Your task to perform on an android device: Add "bose soundlink" to the cart on walmart, then select checkout. Image 0: 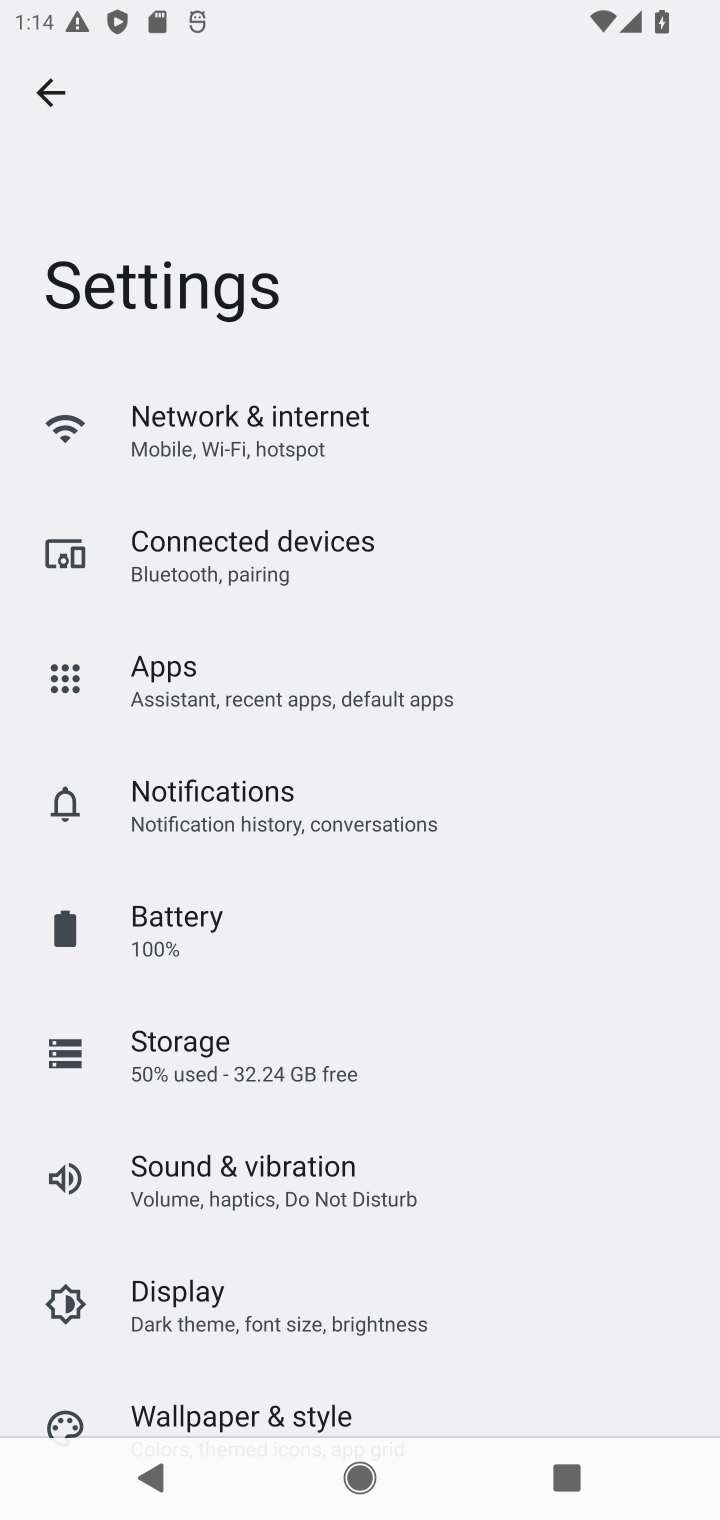
Step 0: press home button
Your task to perform on an android device: Add "bose soundlink" to the cart on walmart, then select checkout. Image 1: 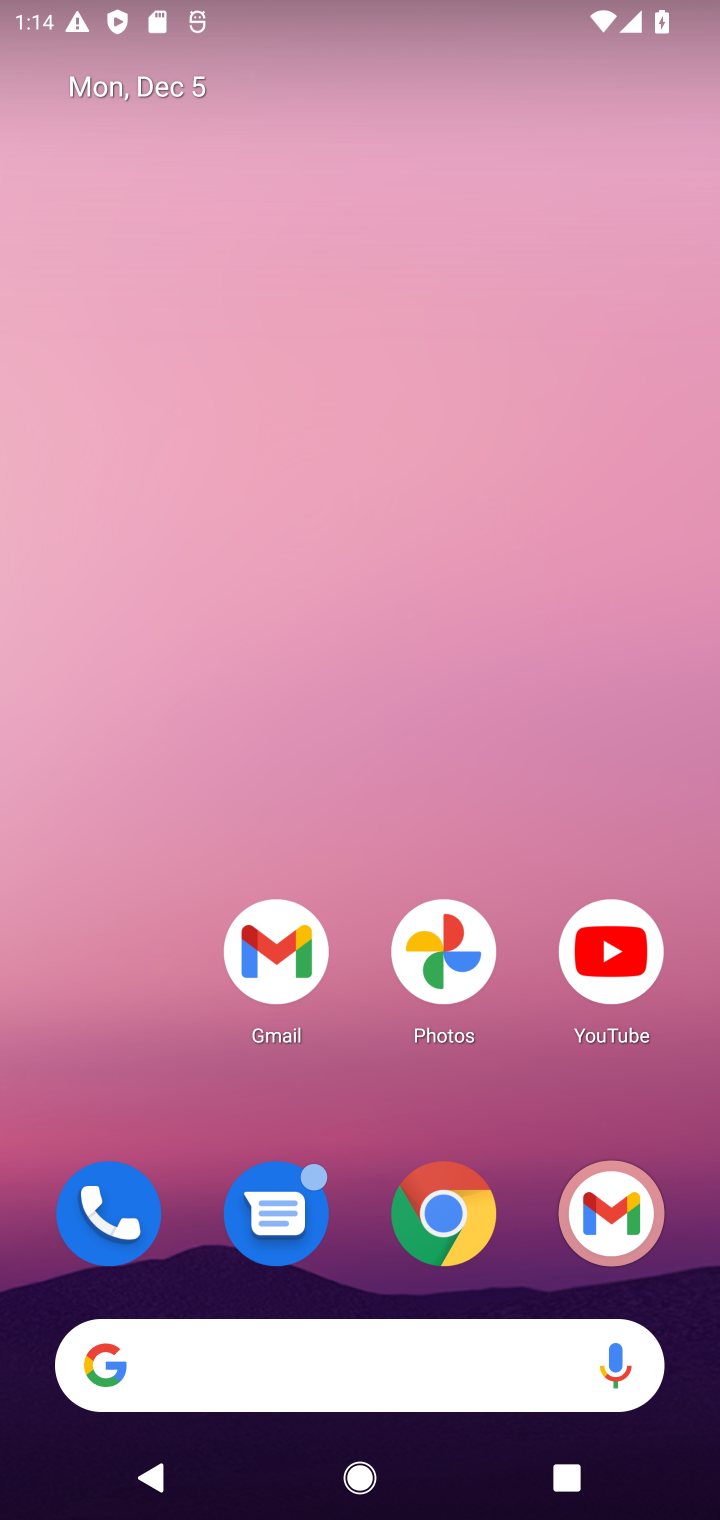
Step 1: click (435, 1226)
Your task to perform on an android device: Add "bose soundlink" to the cart on walmart, then select checkout. Image 2: 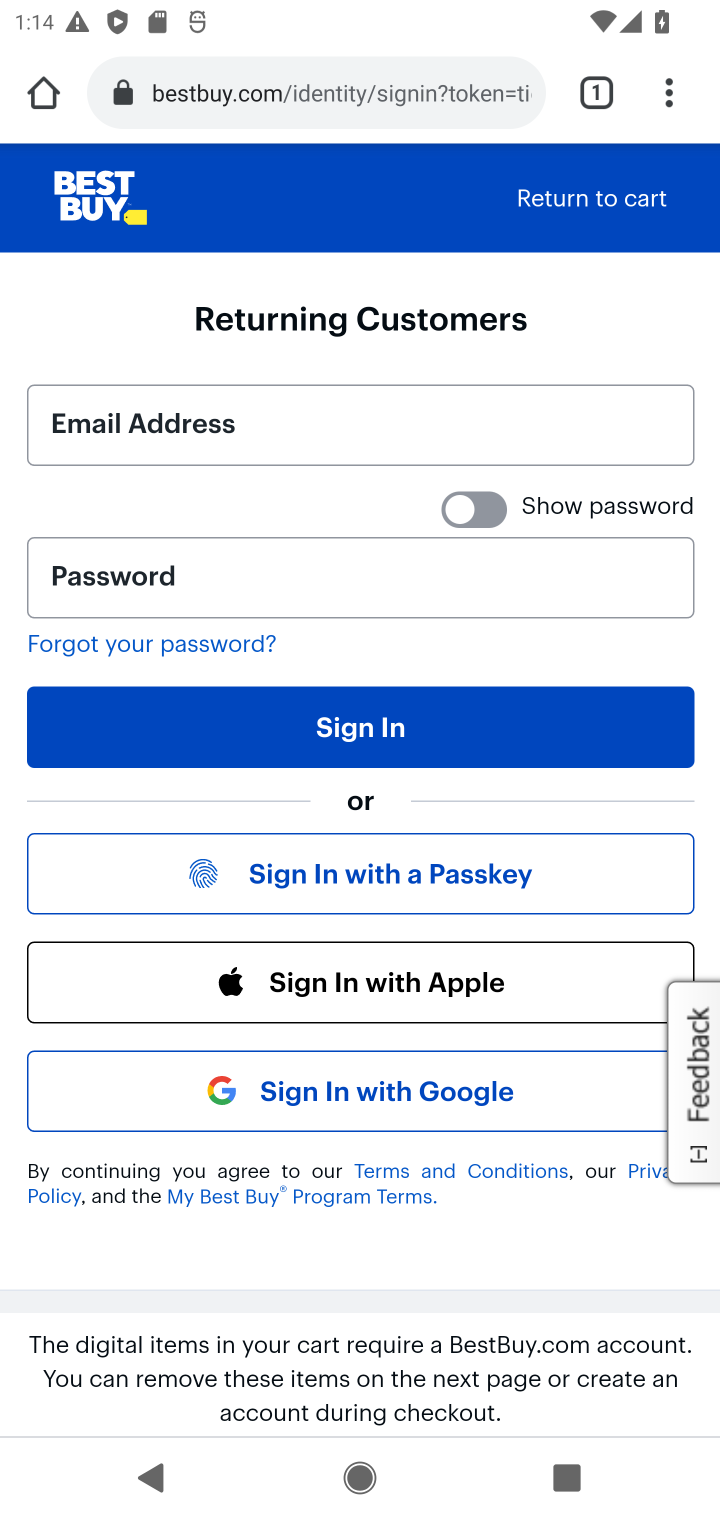
Step 2: click (236, 107)
Your task to perform on an android device: Add "bose soundlink" to the cart on walmart, then select checkout. Image 3: 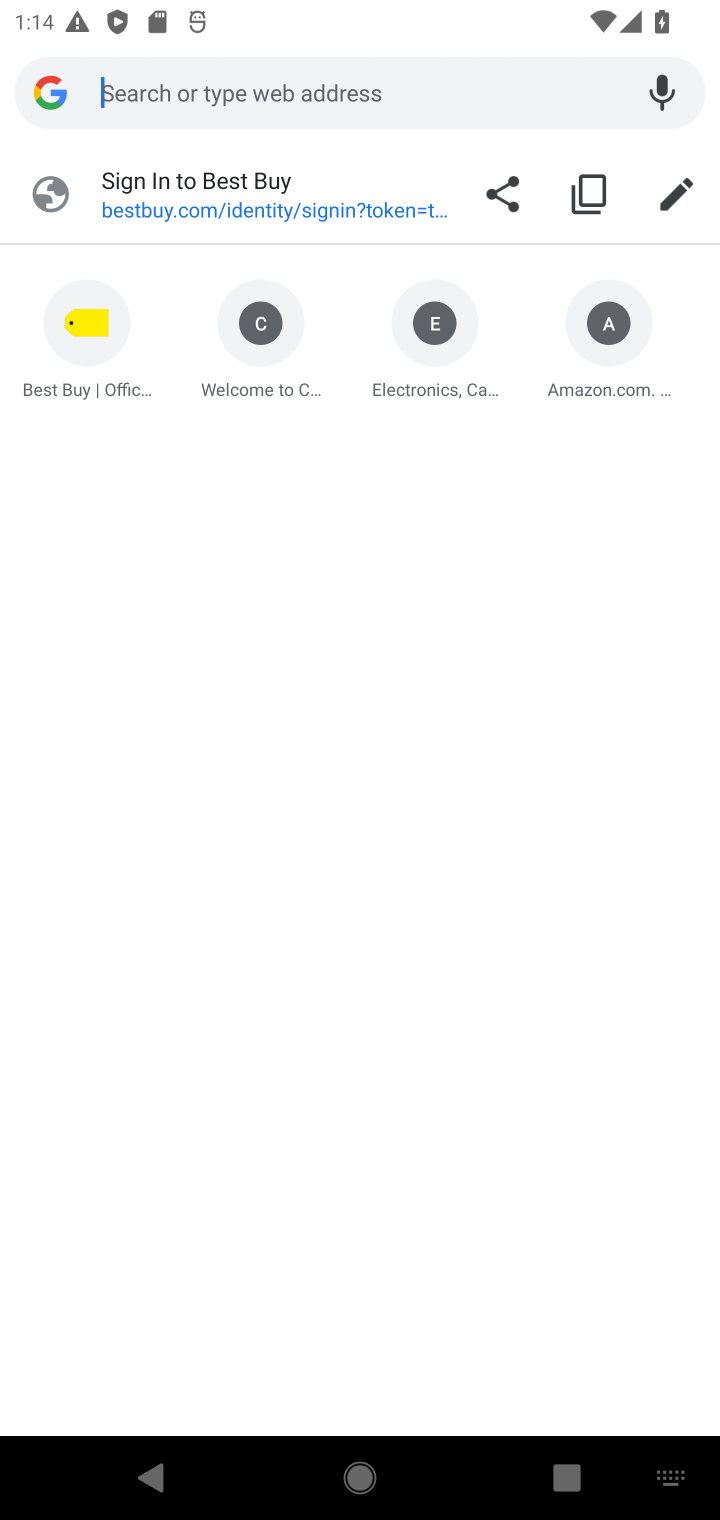
Step 3: type "walmart.com"
Your task to perform on an android device: Add "bose soundlink" to the cart on walmart, then select checkout. Image 4: 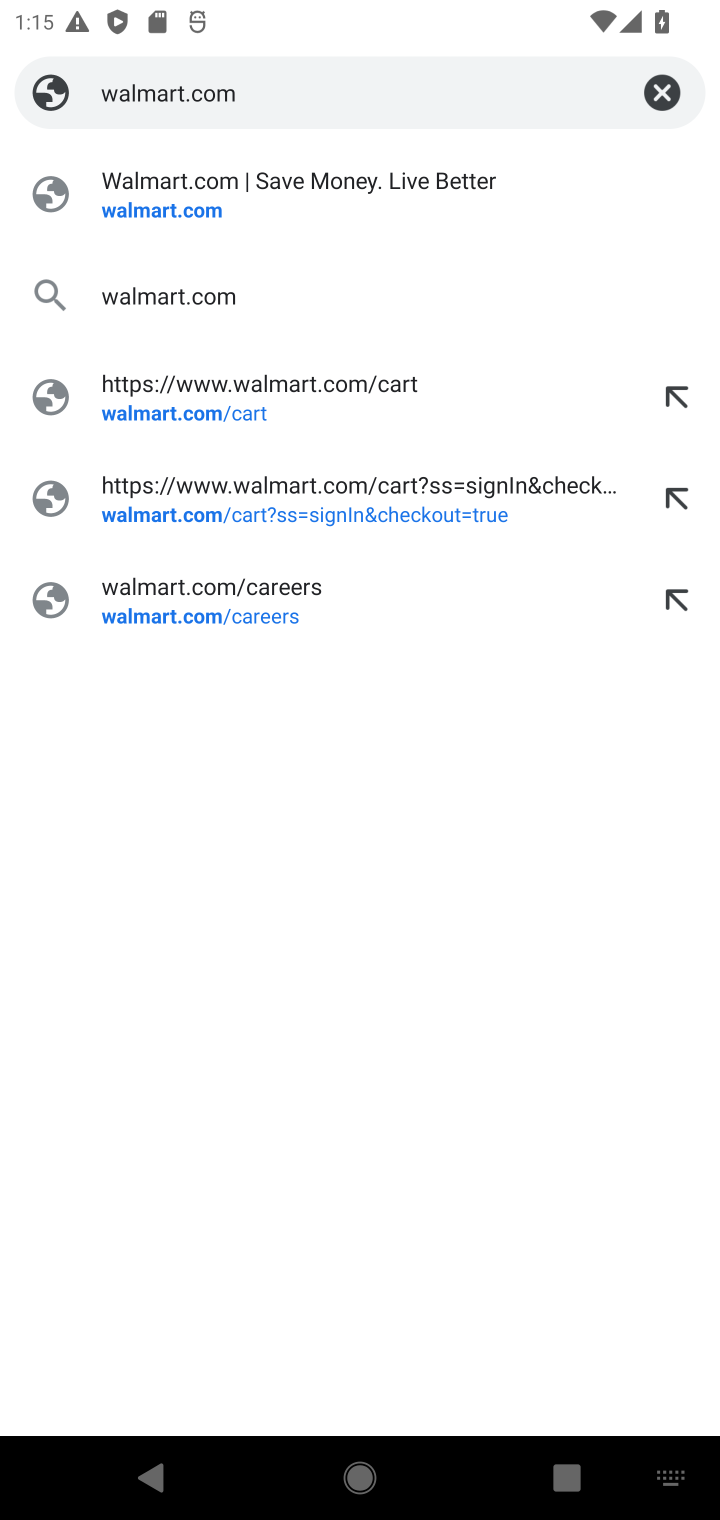
Step 4: click (154, 217)
Your task to perform on an android device: Add "bose soundlink" to the cart on walmart, then select checkout. Image 5: 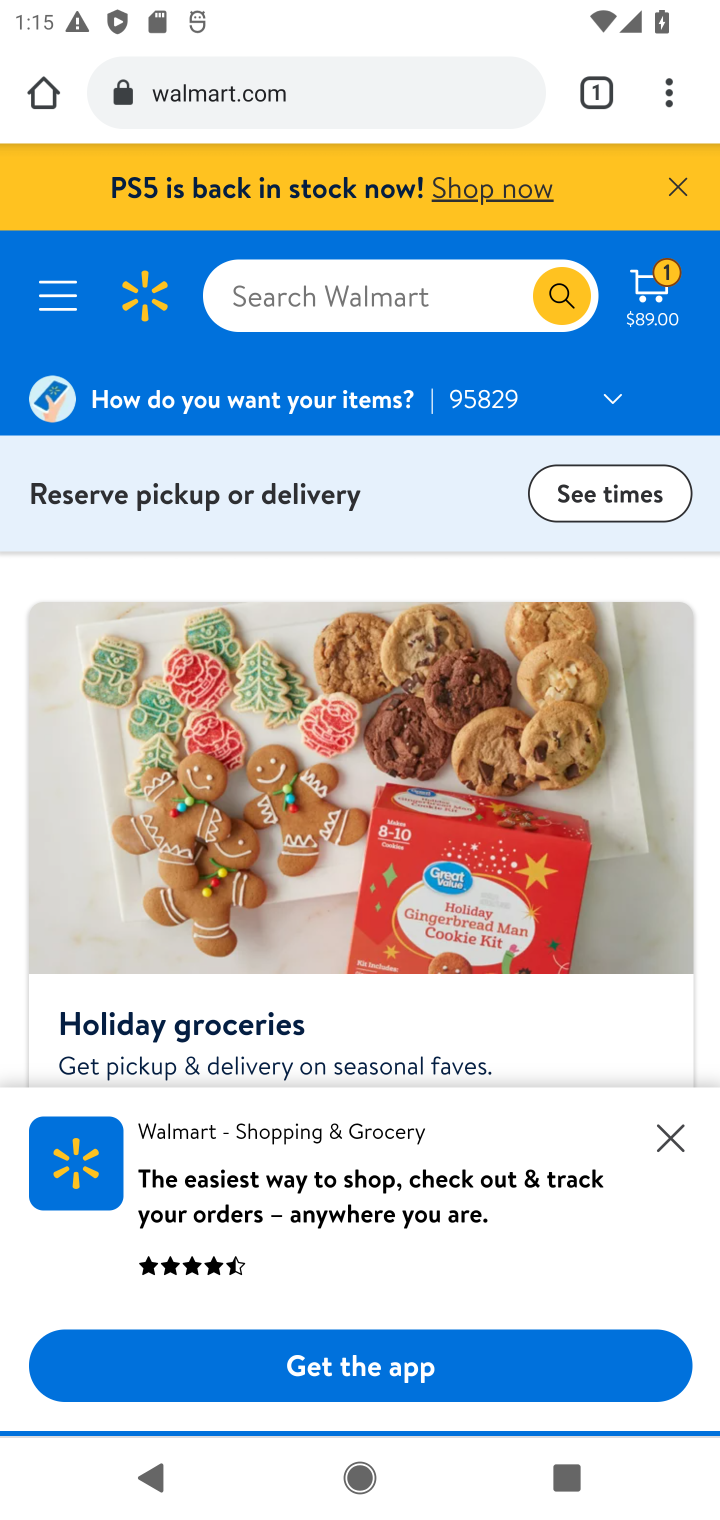
Step 5: click (354, 295)
Your task to perform on an android device: Add "bose soundlink" to the cart on walmart, then select checkout. Image 6: 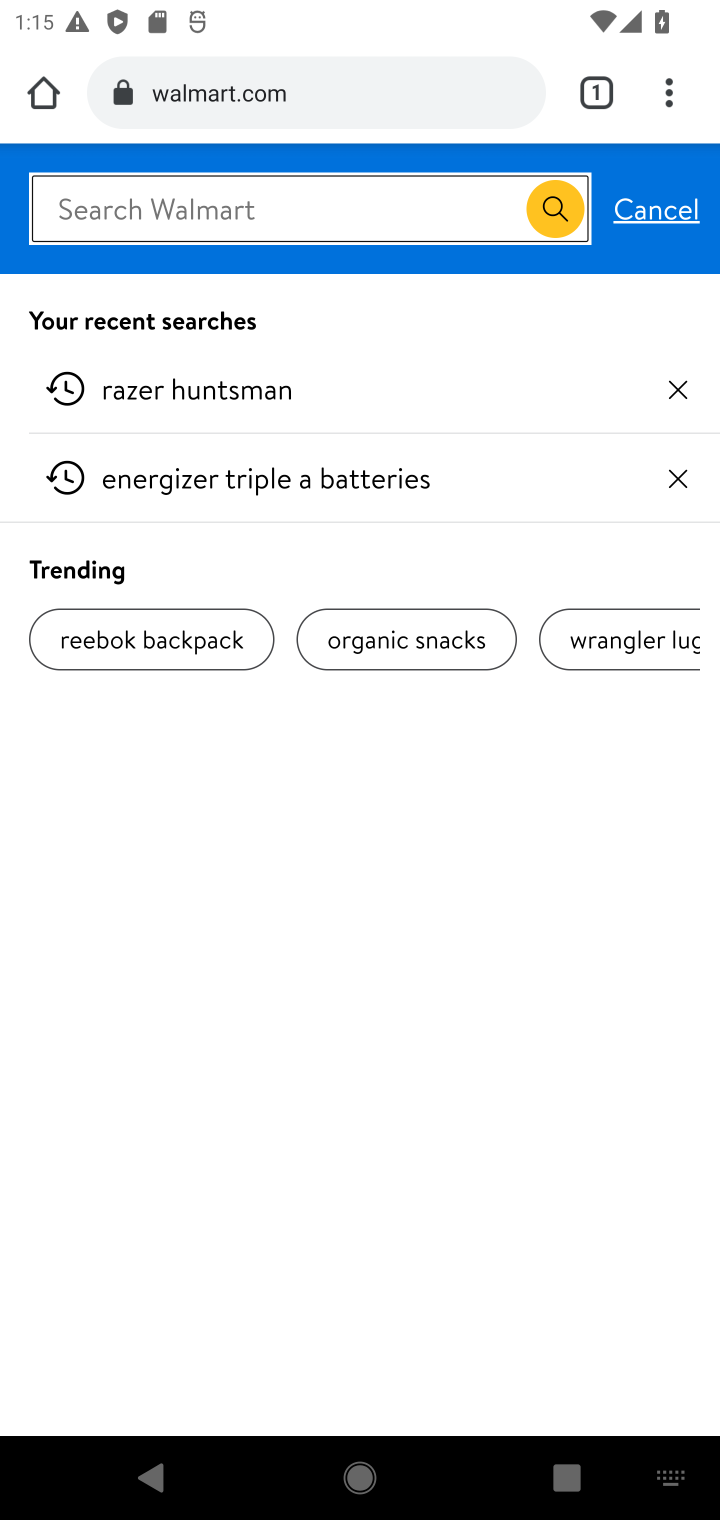
Step 6: type "bose soundlink"
Your task to perform on an android device: Add "bose soundlink" to the cart on walmart, then select checkout. Image 7: 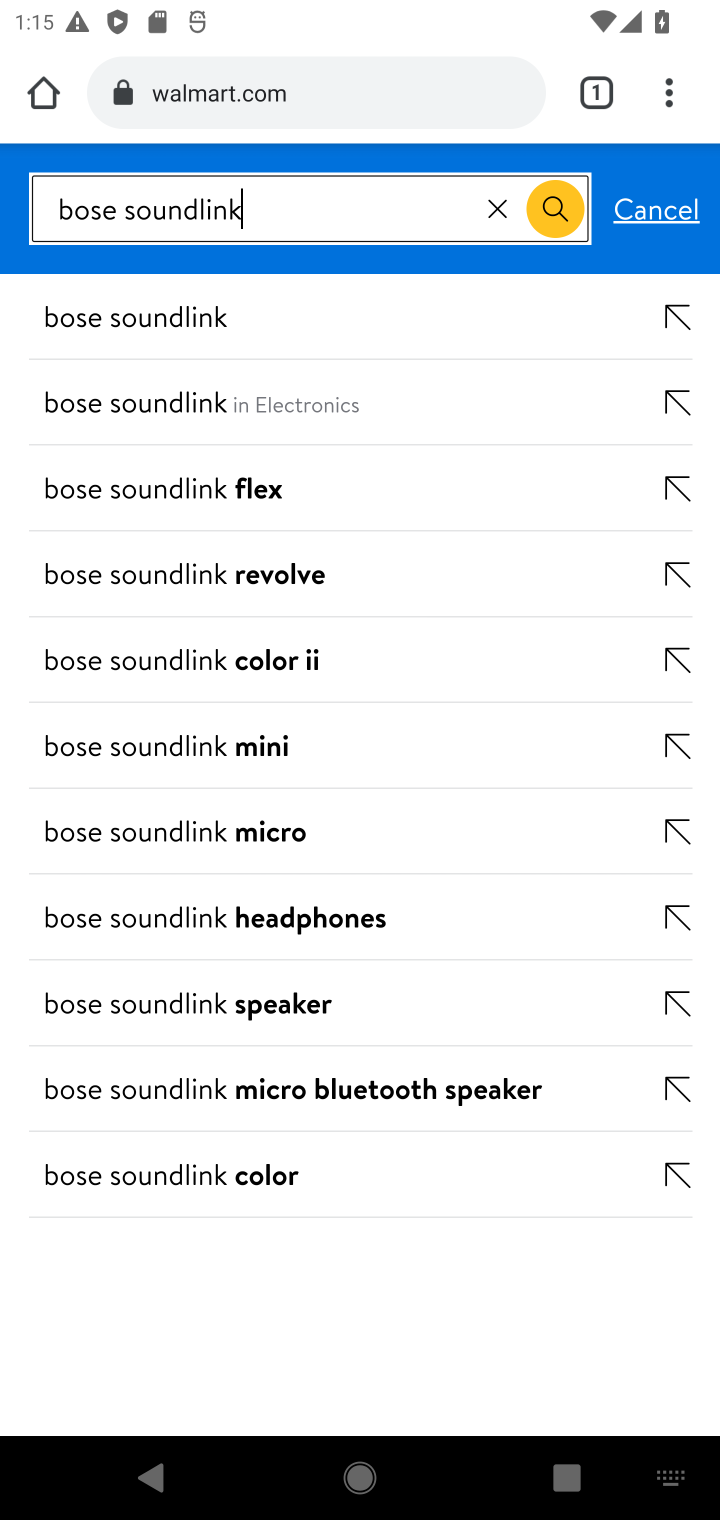
Step 7: click (143, 336)
Your task to perform on an android device: Add "bose soundlink" to the cart on walmart, then select checkout. Image 8: 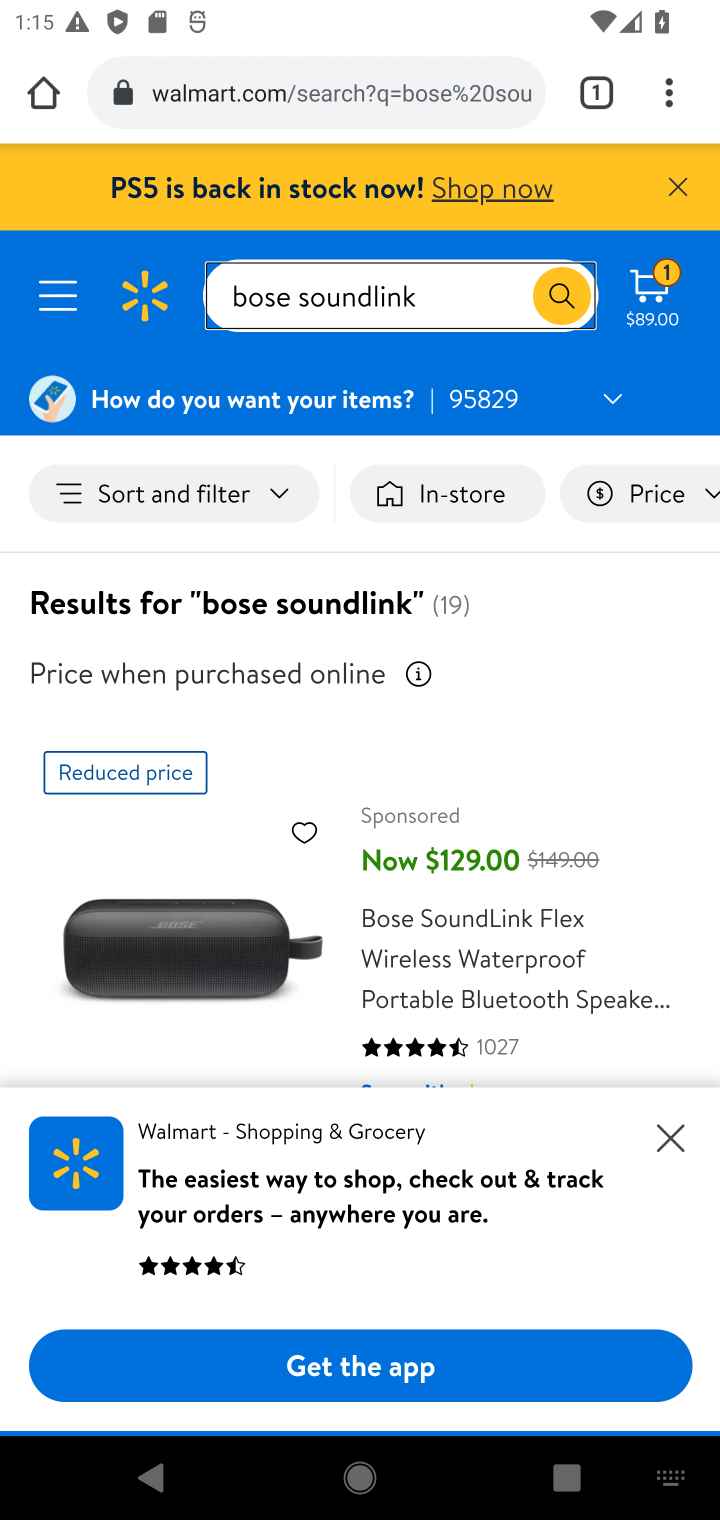
Step 8: drag from (331, 719) to (350, 501)
Your task to perform on an android device: Add "bose soundlink" to the cart on walmart, then select checkout. Image 9: 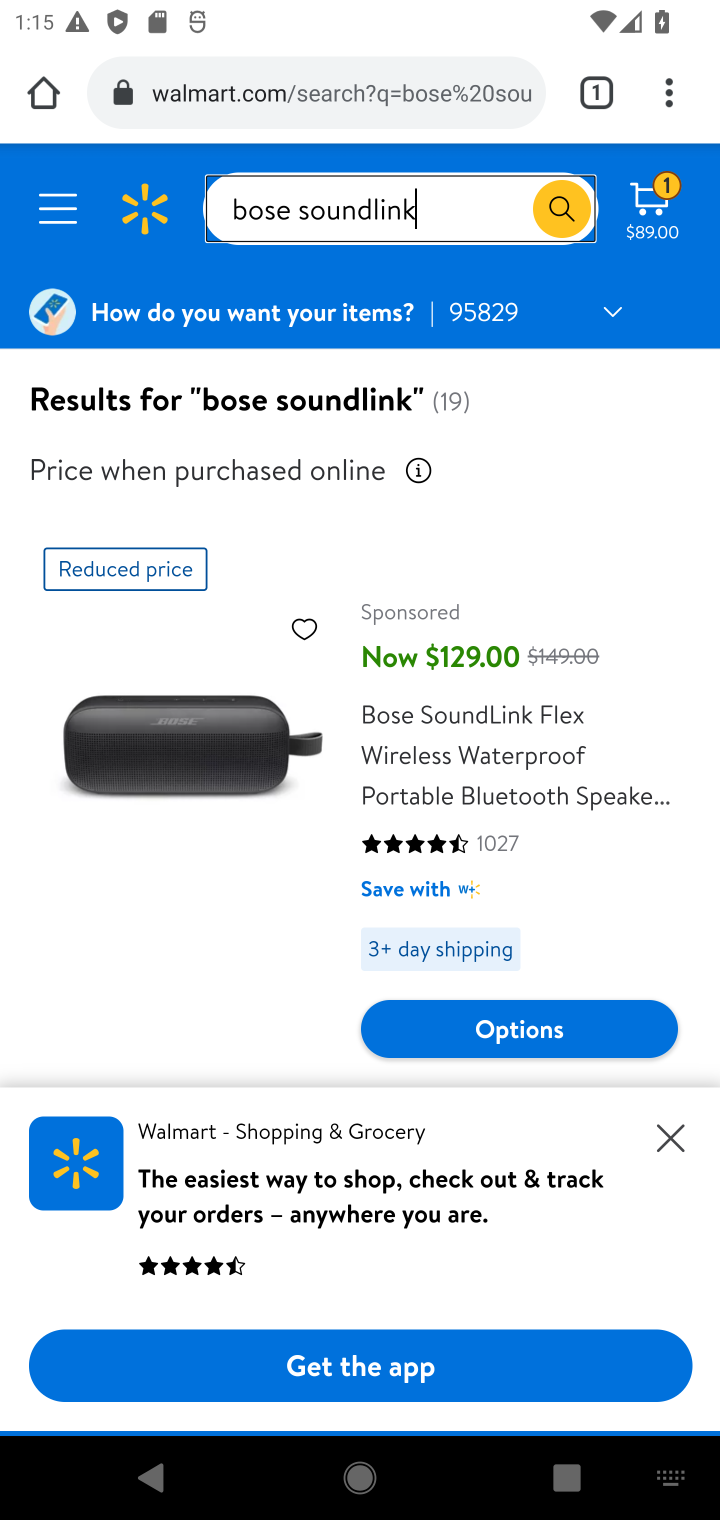
Step 9: click (523, 770)
Your task to perform on an android device: Add "bose soundlink" to the cart on walmart, then select checkout. Image 10: 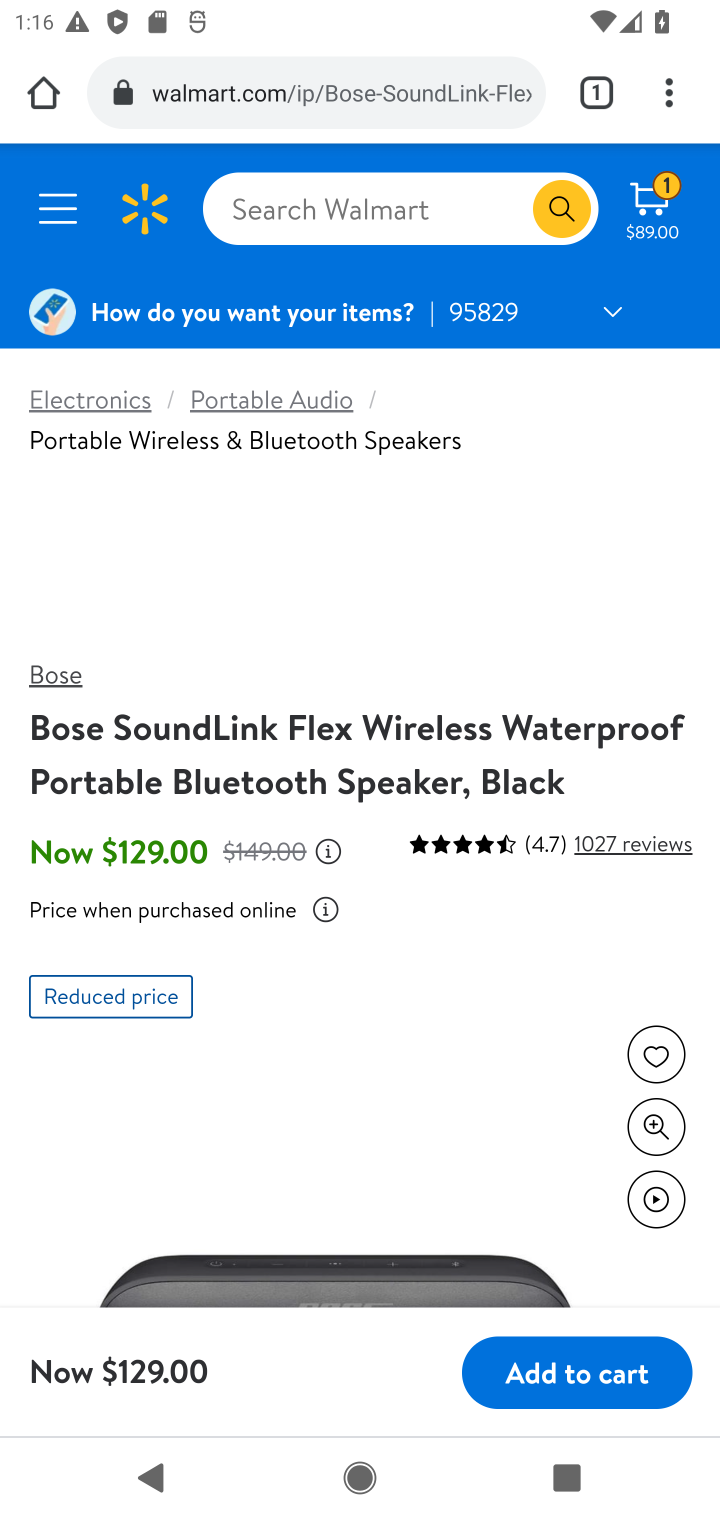
Step 10: click (574, 1384)
Your task to perform on an android device: Add "bose soundlink" to the cart on walmart, then select checkout. Image 11: 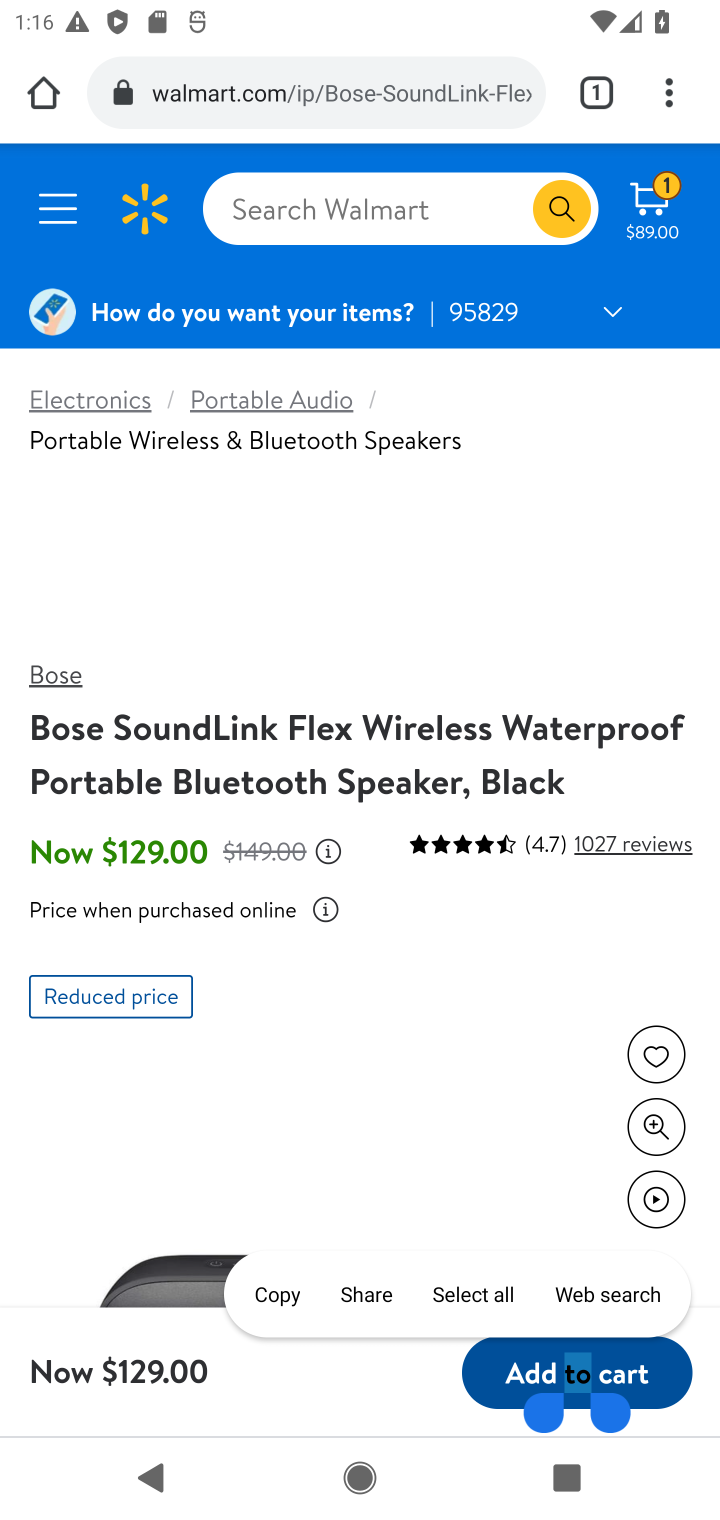
Step 11: click (521, 1366)
Your task to perform on an android device: Add "bose soundlink" to the cart on walmart, then select checkout. Image 12: 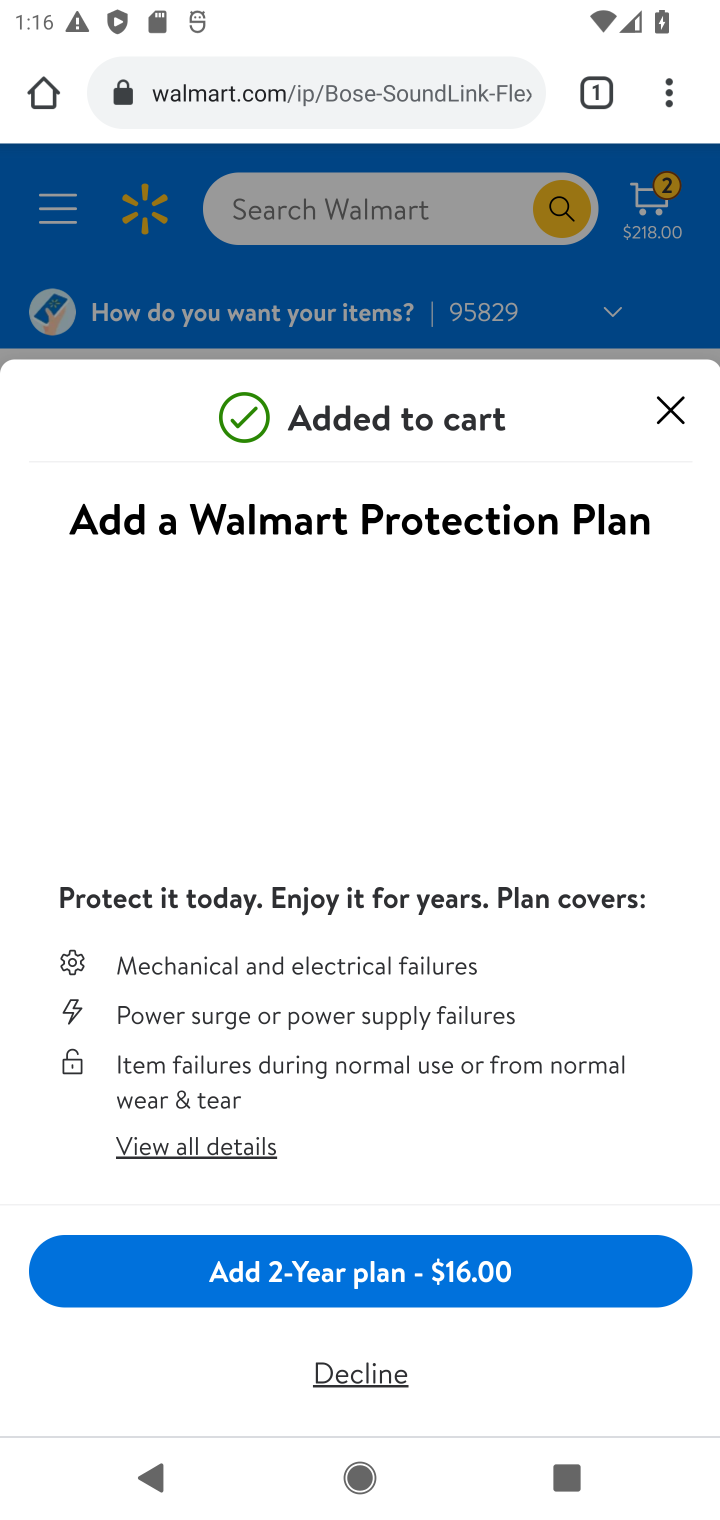
Step 12: click (660, 215)
Your task to perform on an android device: Add "bose soundlink" to the cart on walmart, then select checkout. Image 13: 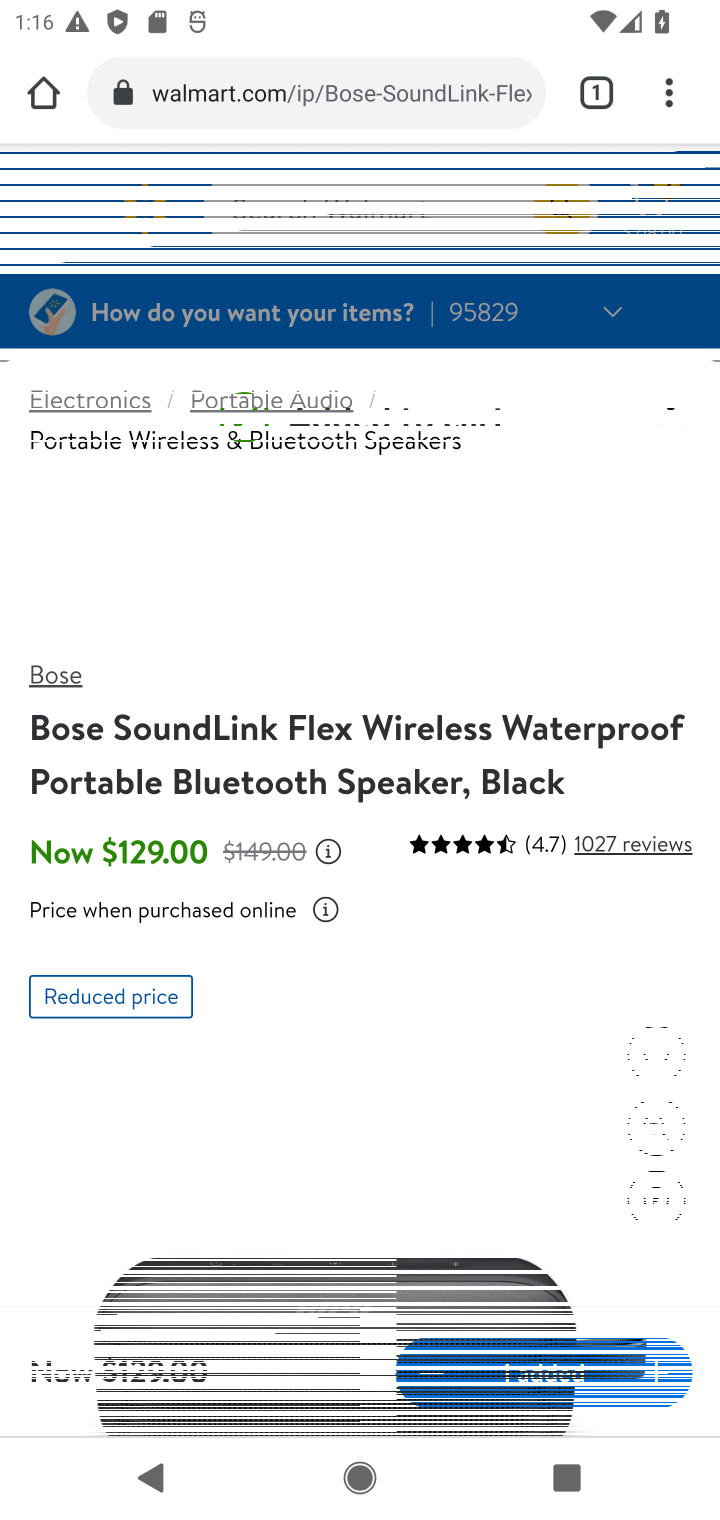
Step 13: click (709, 380)
Your task to perform on an android device: Add "bose soundlink" to the cart on walmart, then select checkout. Image 14: 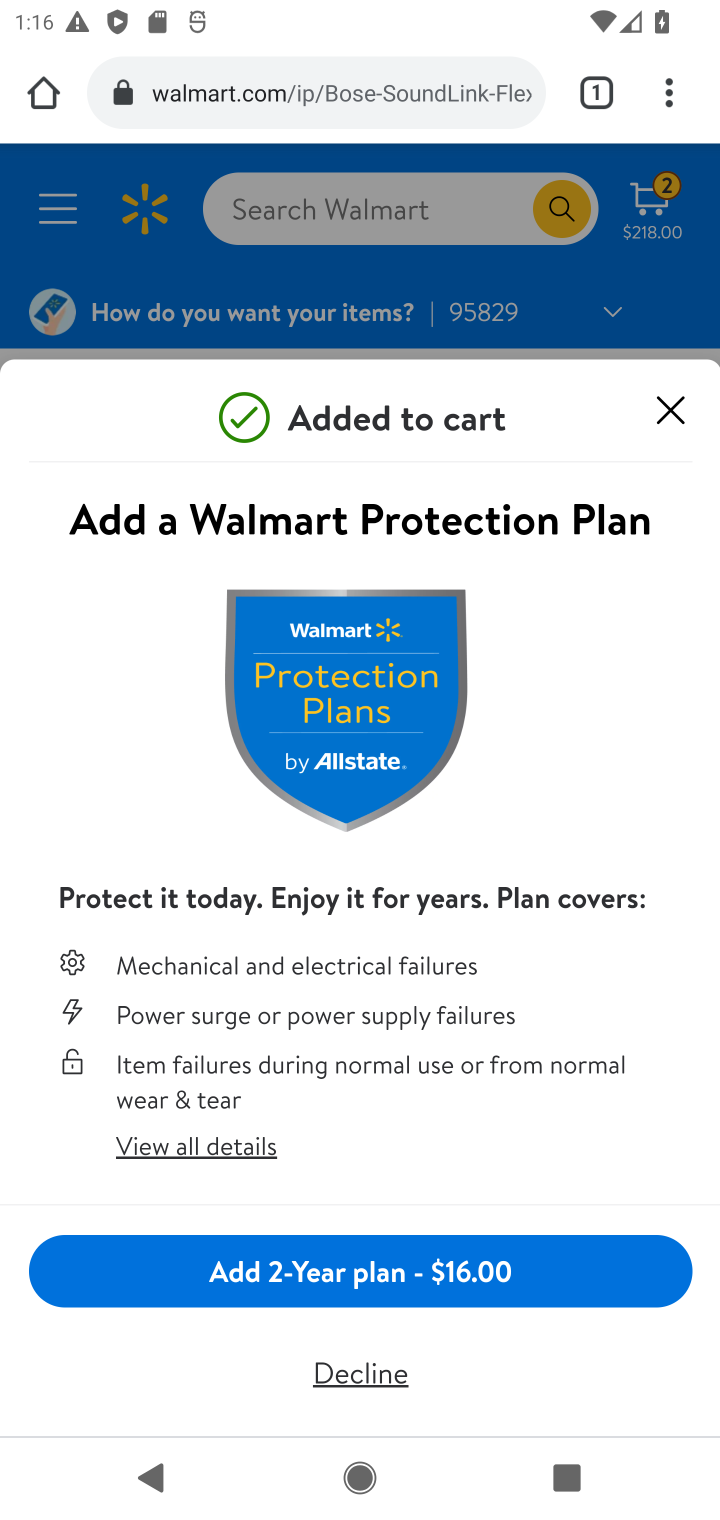
Step 14: click (627, 187)
Your task to perform on an android device: Add "bose soundlink" to the cart on walmart, then select checkout. Image 15: 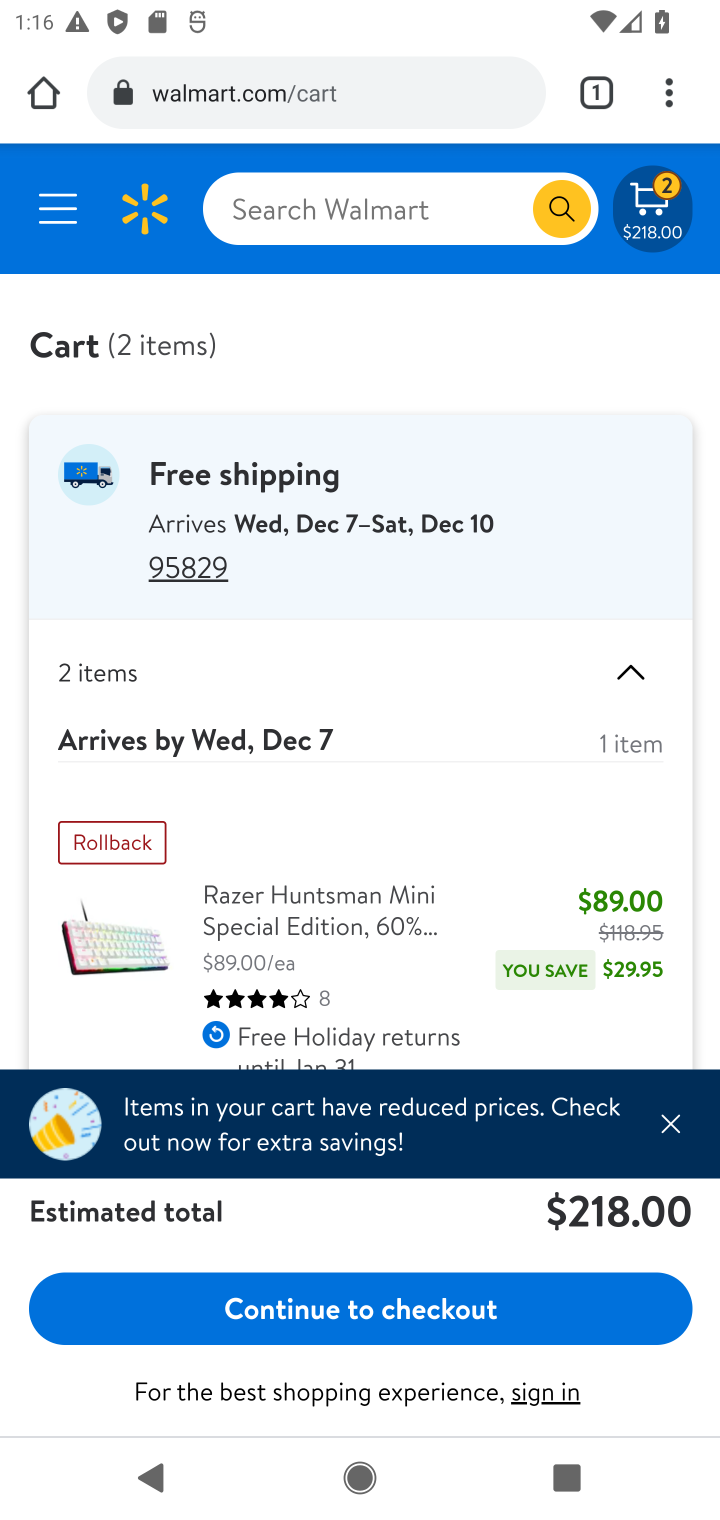
Step 15: click (426, 1325)
Your task to perform on an android device: Add "bose soundlink" to the cart on walmart, then select checkout. Image 16: 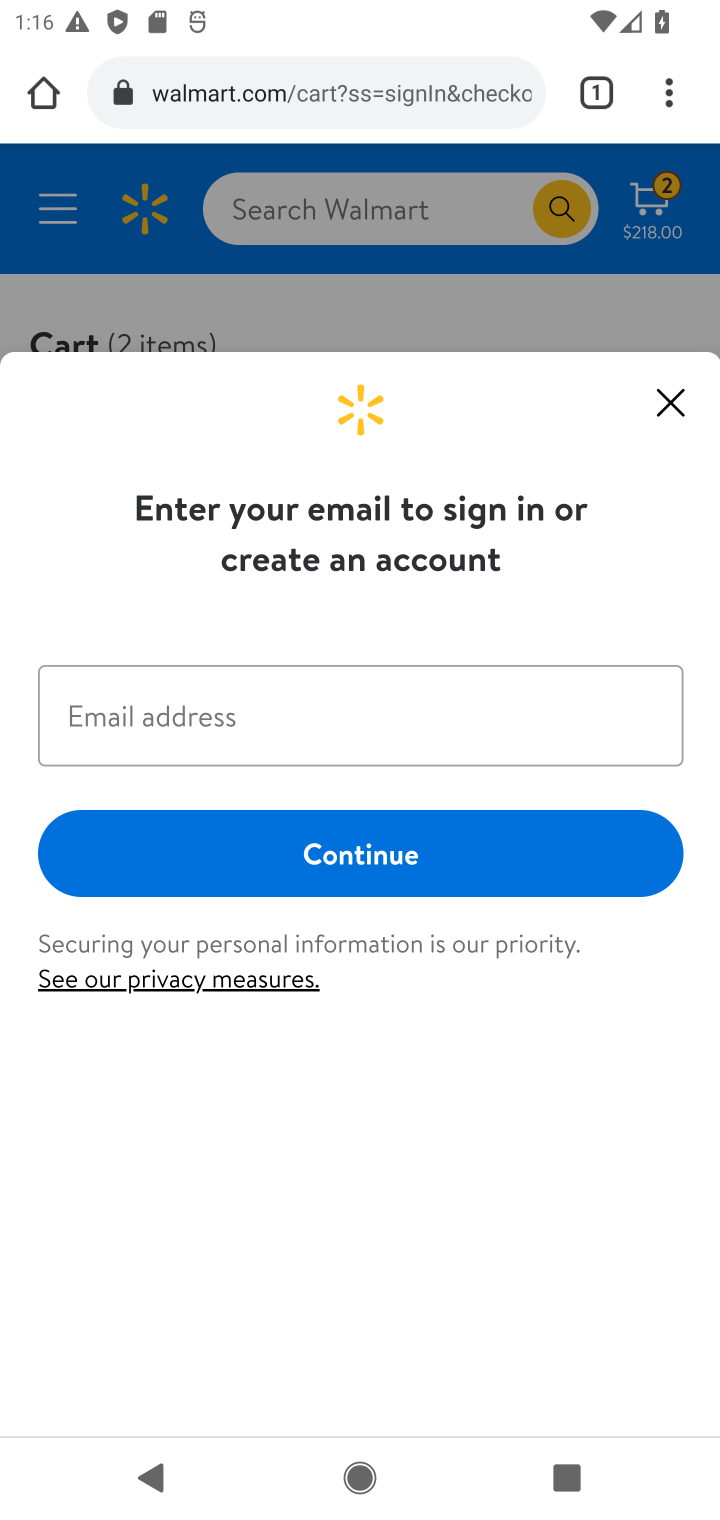
Step 16: task complete